Your task to perform on an android device: Open the phone app and click the voicemail tab. Image 0: 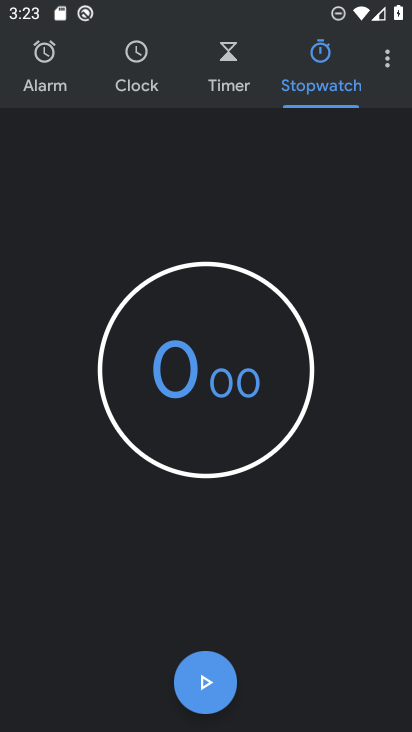
Step 0: press home button
Your task to perform on an android device: Open the phone app and click the voicemail tab. Image 1: 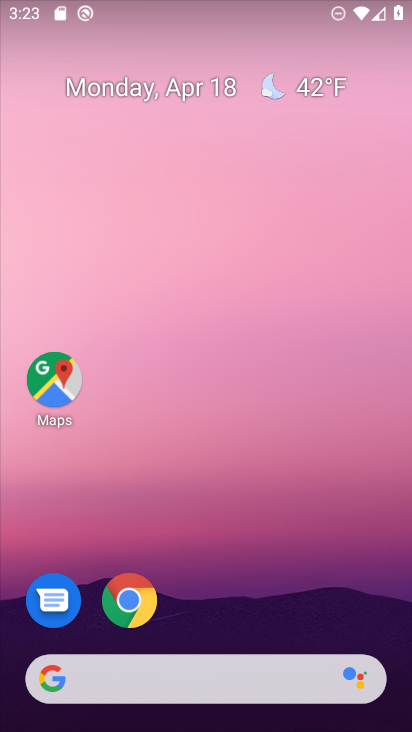
Step 1: drag from (117, 692) to (281, 21)
Your task to perform on an android device: Open the phone app and click the voicemail tab. Image 2: 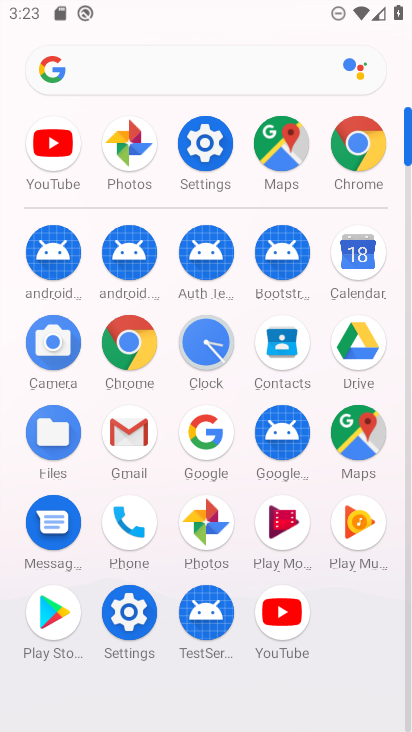
Step 2: click (128, 532)
Your task to perform on an android device: Open the phone app and click the voicemail tab. Image 3: 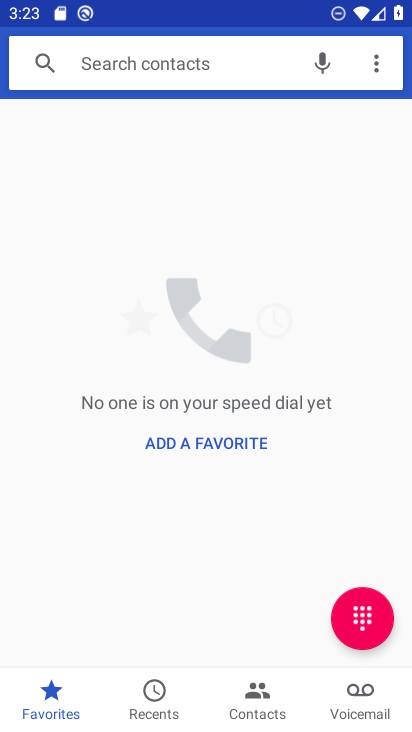
Step 3: click (355, 680)
Your task to perform on an android device: Open the phone app and click the voicemail tab. Image 4: 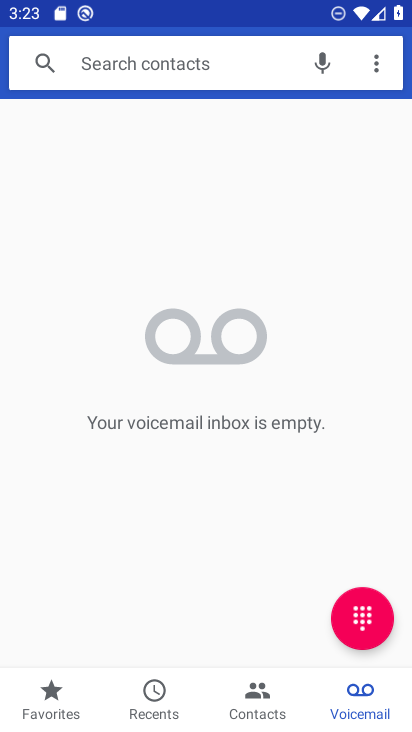
Step 4: task complete